Your task to perform on an android device: Open Google Maps Image 0: 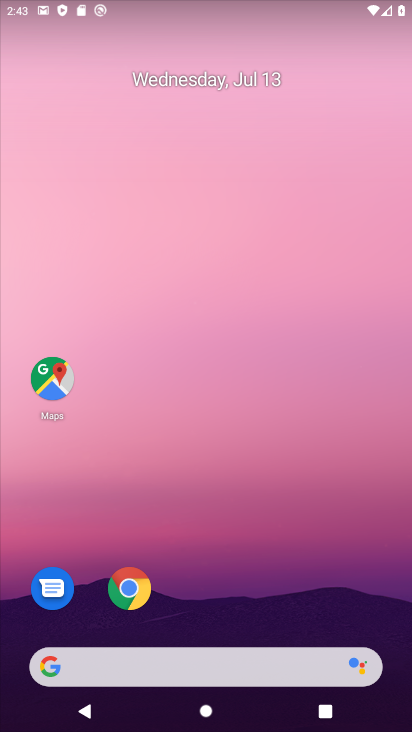
Step 0: click (382, 650)
Your task to perform on an android device: Open Google Maps Image 1: 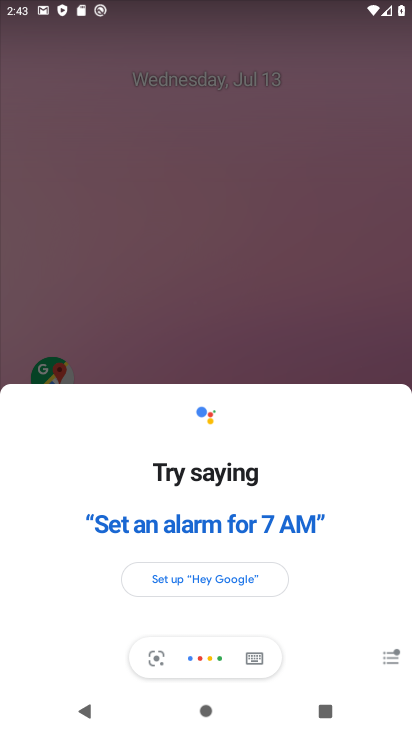
Step 1: click (168, 272)
Your task to perform on an android device: Open Google Maps Image 2: 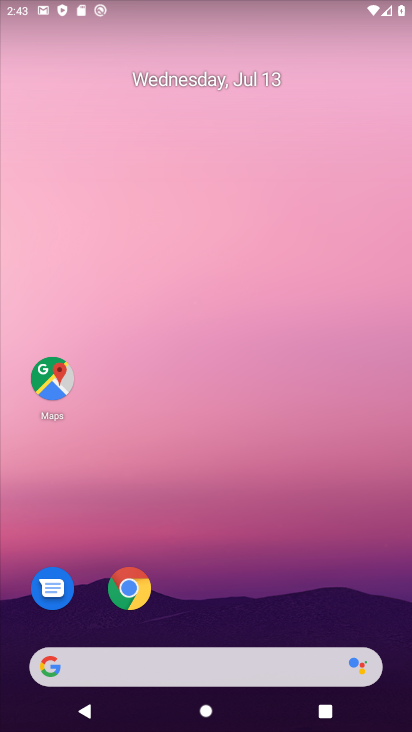
Step 2: press back button
Your task to perform on an android device: Open Google Maps Image 3: 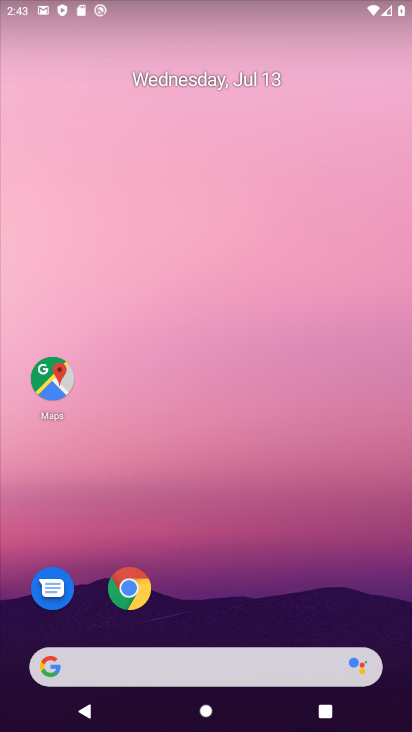
Step 3: press back button
Your task to perform on an android device: Open Google Maps Image 4: 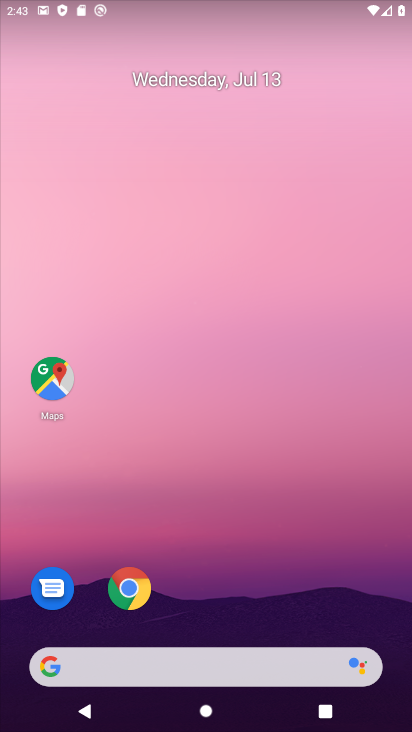
Step 4: press home button
Your task to perform on an android device: Open Google Maps Image 5: 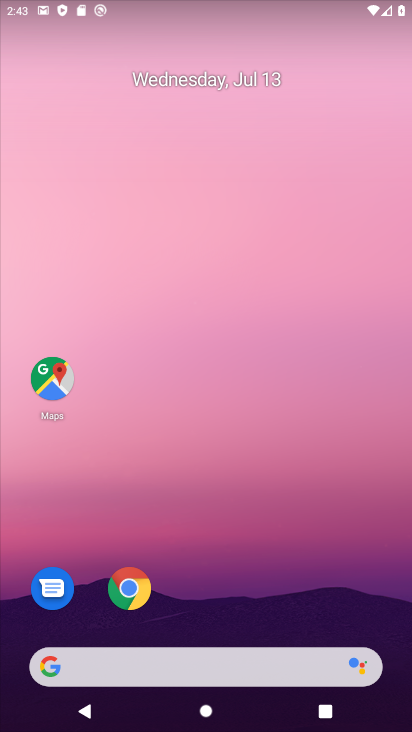
Step 5: click (160, 262)
Your task to perform on an android device: Open Google Maps Image 6: 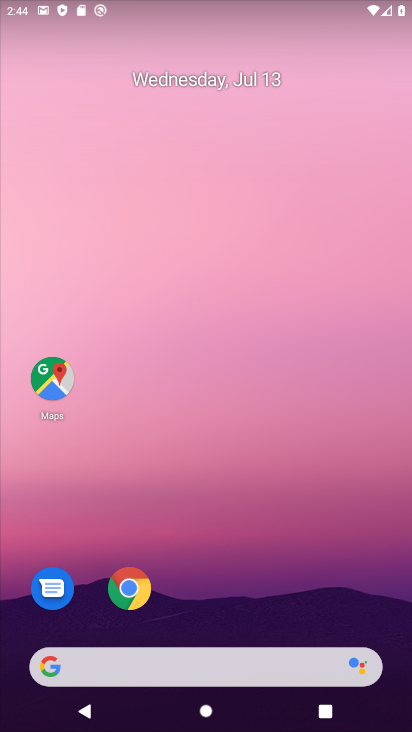
Step 6: drag from (285, 703) to (304, 110)
Your task to perform on an android device: Open Google Maps Image 7: 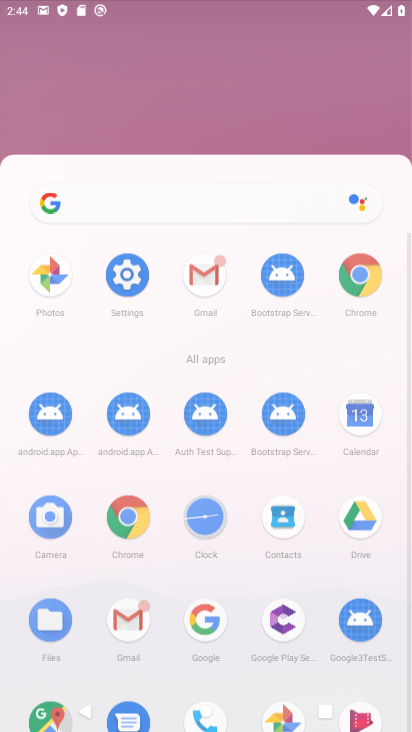
Step 7: drag from (281, 455) to (204, 44)
Your task to perform on an android device: Open Google Maps Image 8: 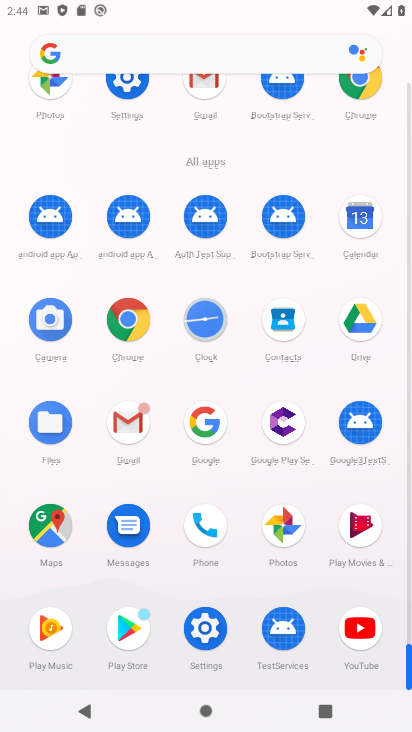
Step 8: drag from (284, 587) to (128, 99)
Your task to perform on an android device: Open Google Maps Image 9: 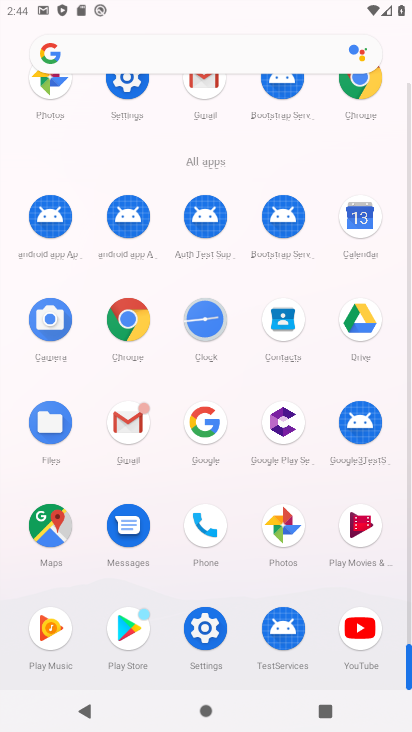
Step 9: click (49, 519)
Your task to perform on an android device: Open Google Maps Image 10: 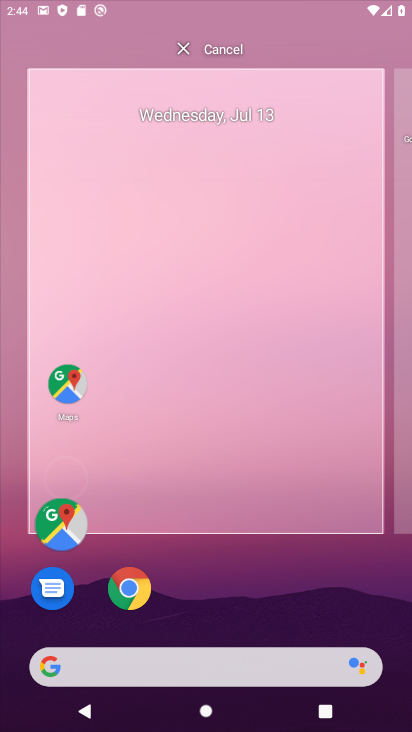
Step 10: click (35, 514)
Your task to perform on an android device: Open Google Maps Image 11: 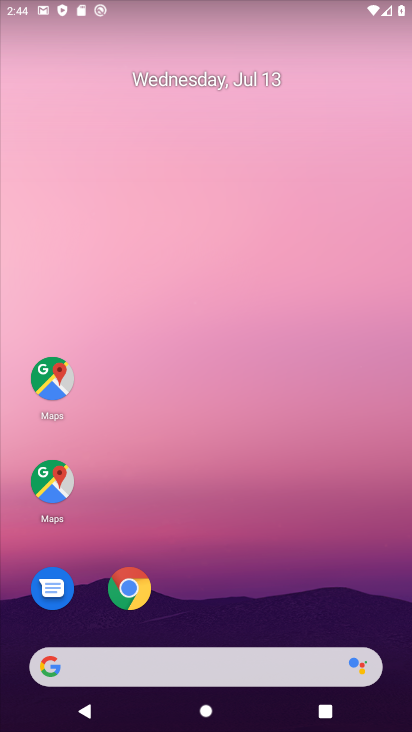
Step 11: click (62, 522)
Your task to perform on an android device: Open Google Maps Image 12: 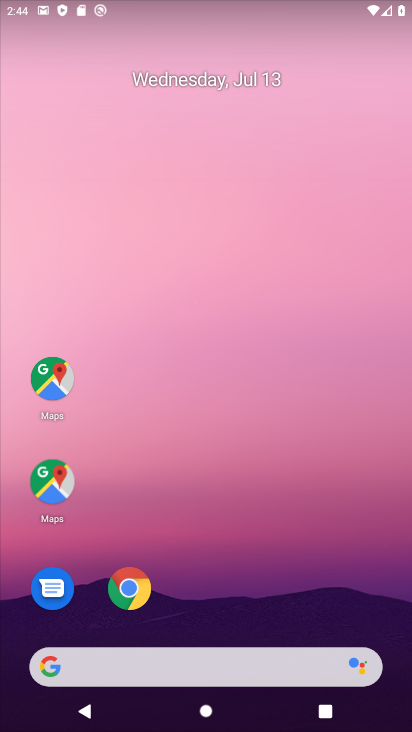
Step 12: click (64, 521)
Your task to perform on an android device: Open Google Maps Image 13: 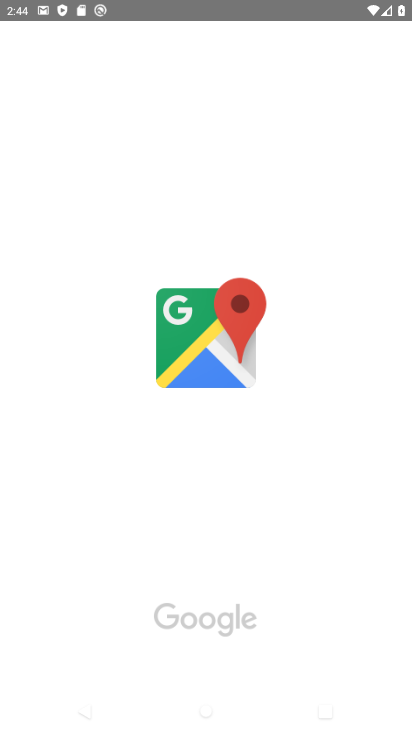
Step 13: click (73, 481)
Your task to perform on an android device: Open Google Maps Image 14: 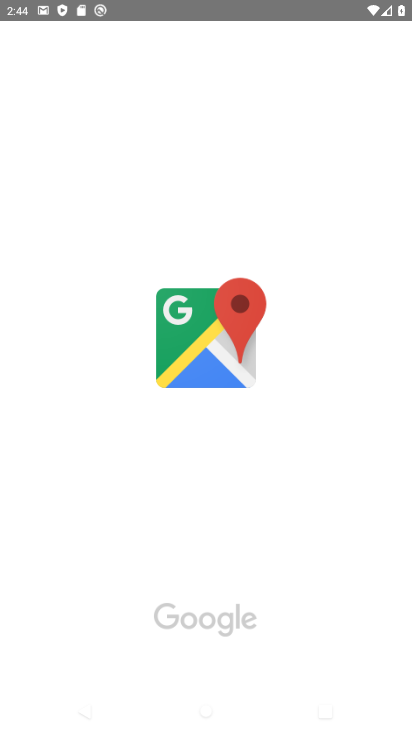
Step 14: click (60, 470)
Your task to perform on an android device: Open Google Maps Image 15: 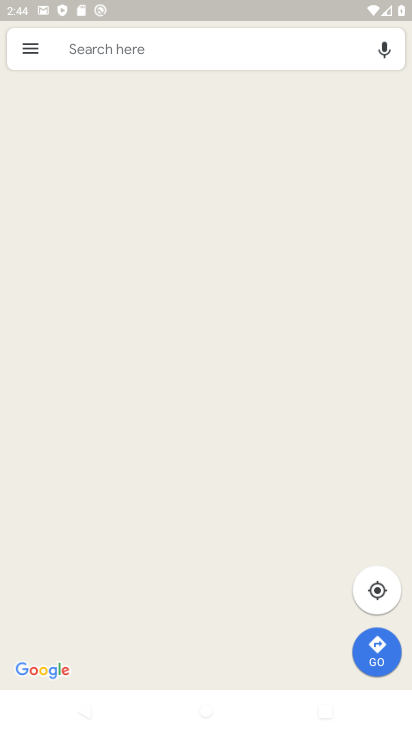
Step 15: task complete